Your task to perform on an android device: allow cookies in the chrome app Image 0: 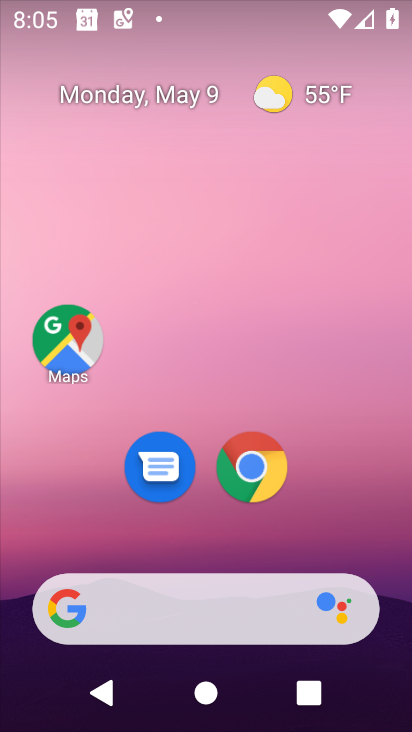
Step 0: click (251, 458)
Your task to perform on an android device: allow cookies in the chrome app Image 1: 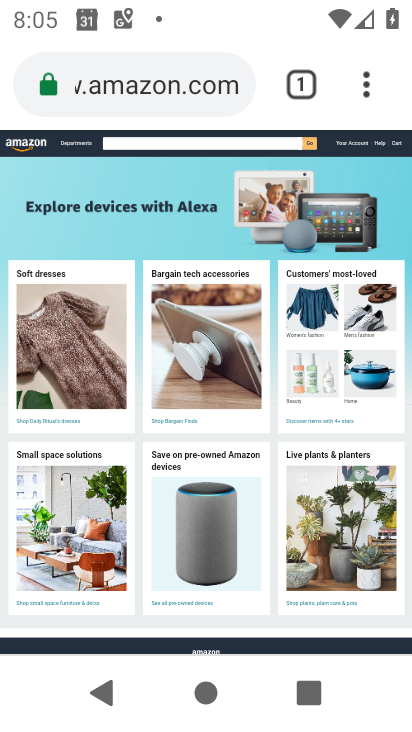
Step 1: drag from (362, 86) to (114, 530)
Your task to perform on an android device: allow cookies in the chrome app Image 2: 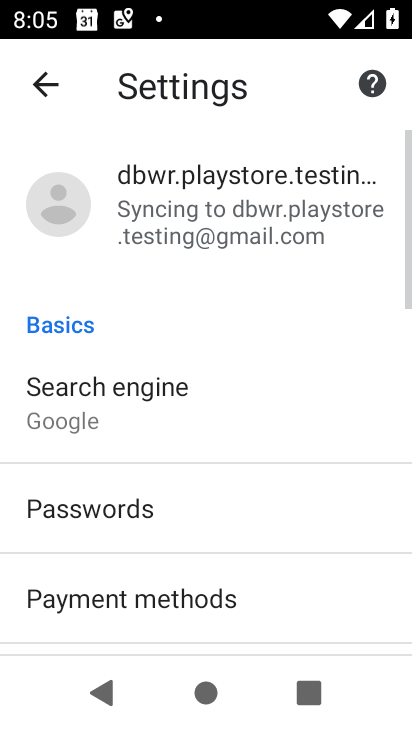
Step 2: drag from (258, 598) to (252, 178)
Your task to perform on an android device: allow cookies in the chrome app Image 3: 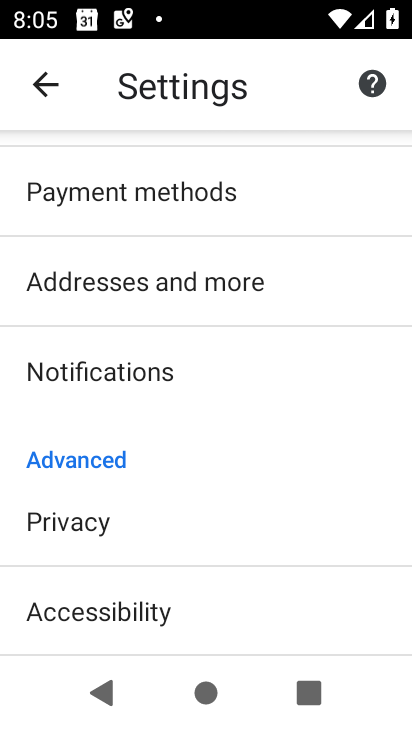
Step 3: drag from (231, 563) to (215, 228)
Your task to perform on an android device: allow cookies in the chrome app Image 4: 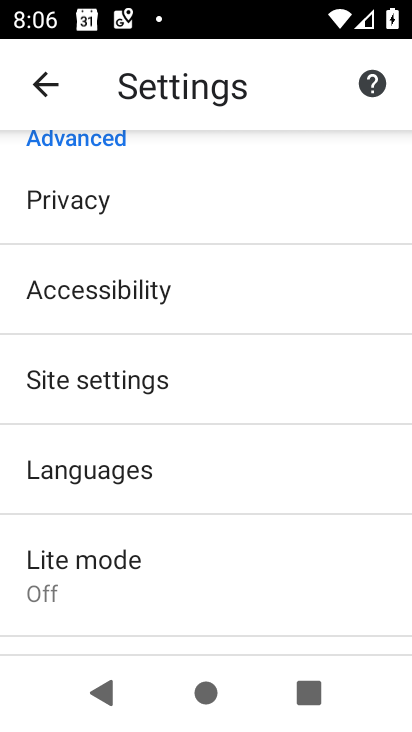
Step 4: click (107, 381)
Your task to perform on an android device: allow cookies in the chrome app Image 5: 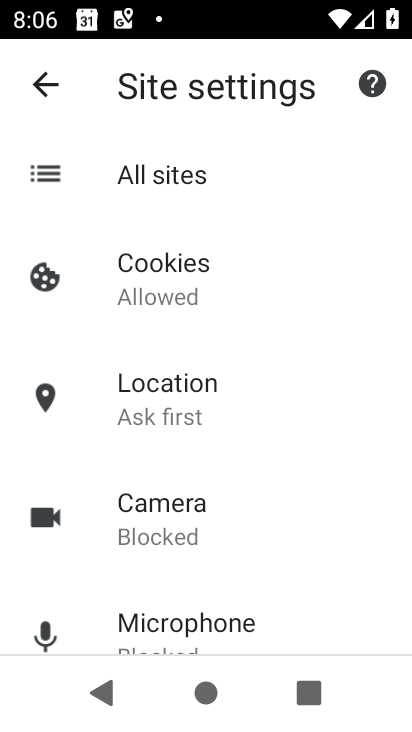
Step 5: click (174, 283)
Your task to perform on an android device: allow cookies in the chrome app Image 6: 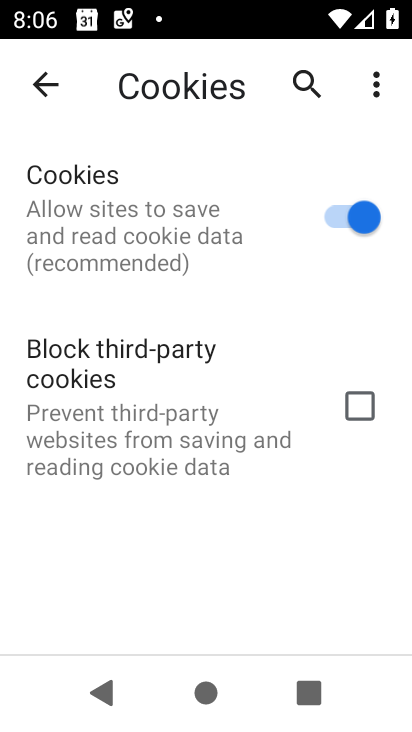
Step 6: task complete